Your task to perform on an android device: open a new tab in the chrome app Image 0: 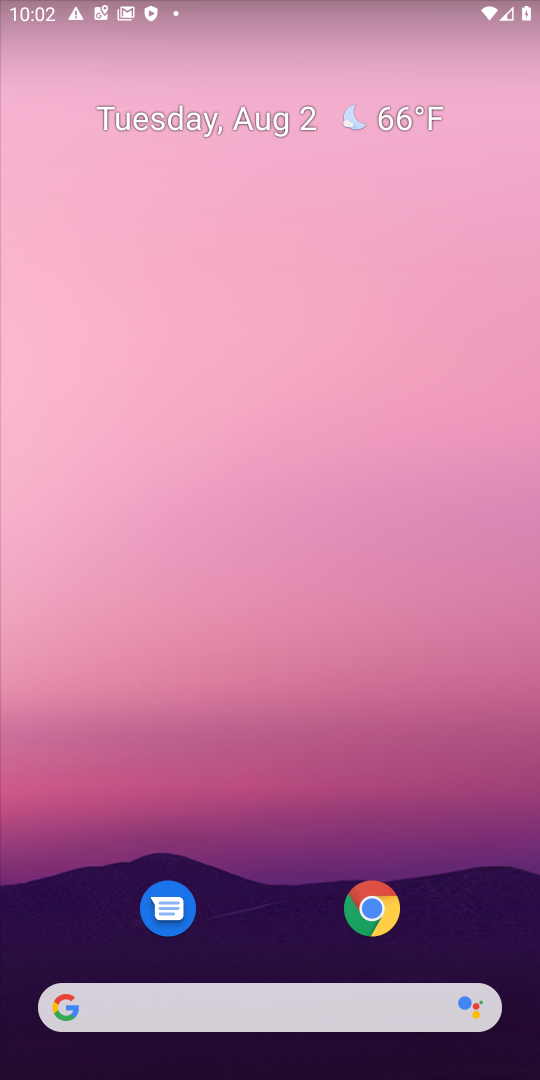
Step 0: click (372, 902)
Your task to perform on an android device: open a new tab in the chrome app Image 1: 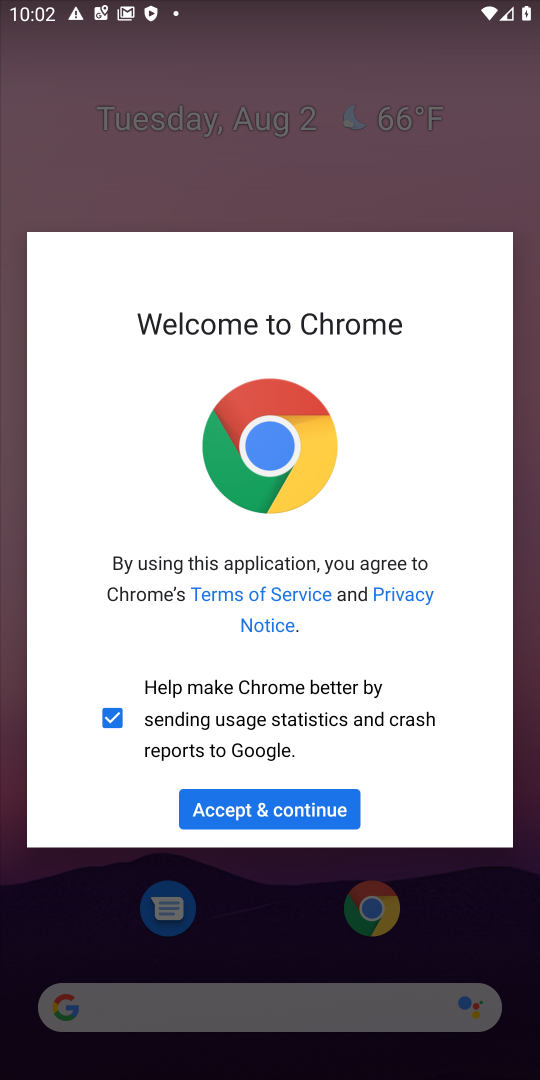
Step 1: click (251, 809)
Your task to perform on an android device: open a new tab in the chrome app Image 2: 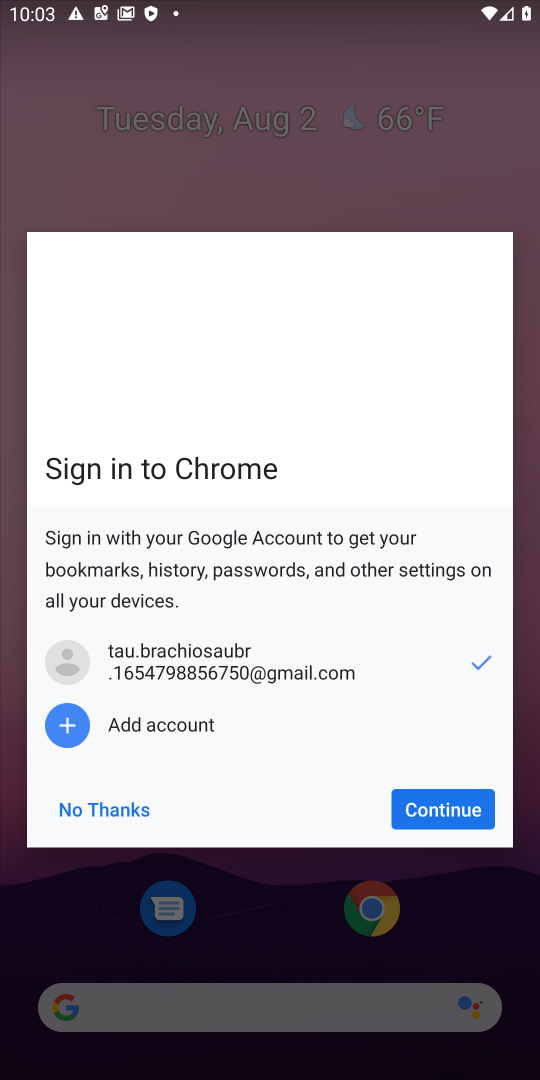
Step 2: click (85, 805)
Your task to perform on an android device: open a new tab in the chrome app Image 3: 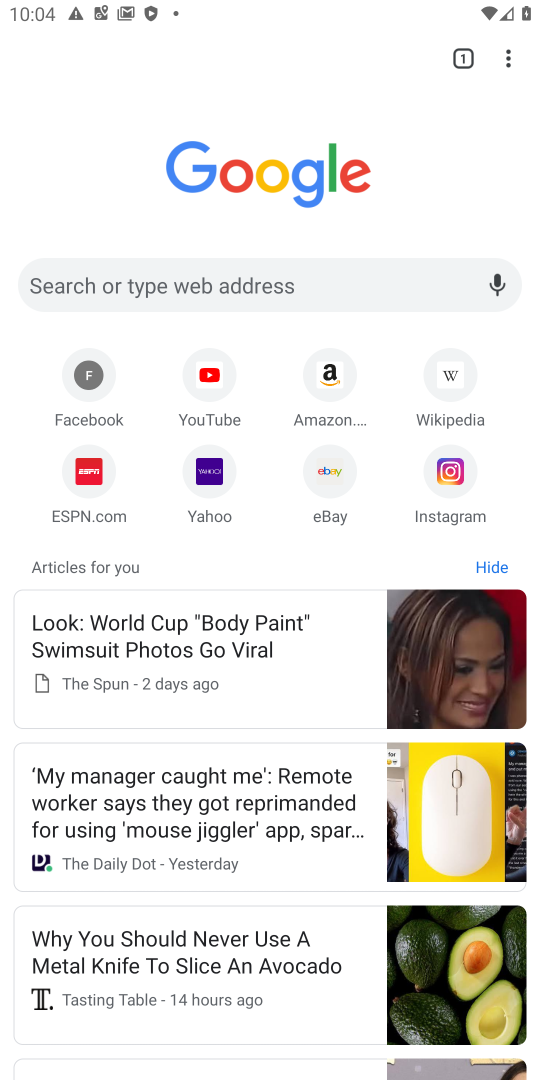
Step 3: click (467, 57)
Your task to perform on an android device: open a new tab in the chrome app Image 4: 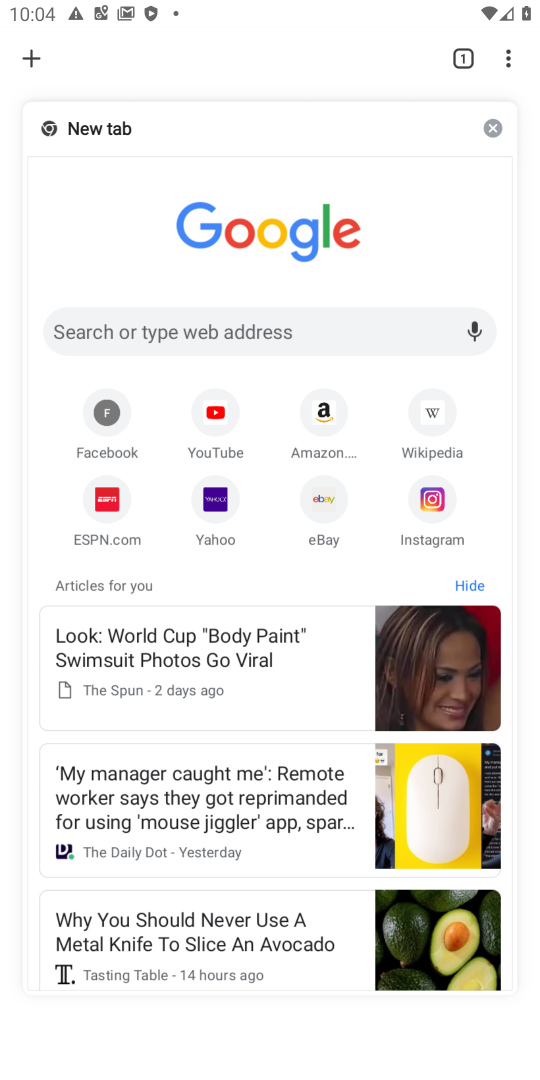
Step 4: click (28, 54)
Your task to perform on an android device: open a new tab in the chrome app Image 5: 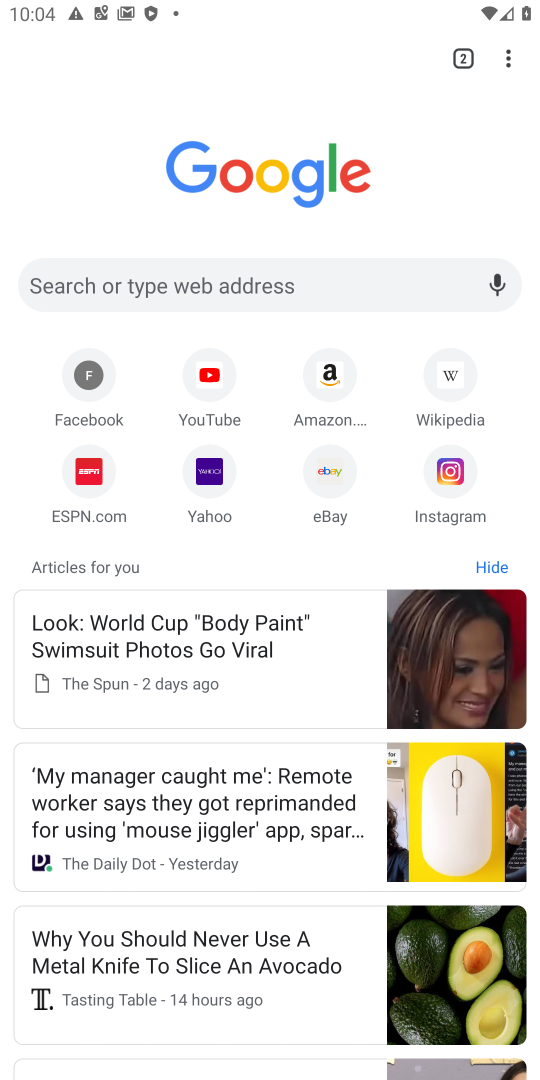
Step 5: task complete